Your task to perform on an android device: Open the Play Movies app and select the watchlist tab. Image 0: 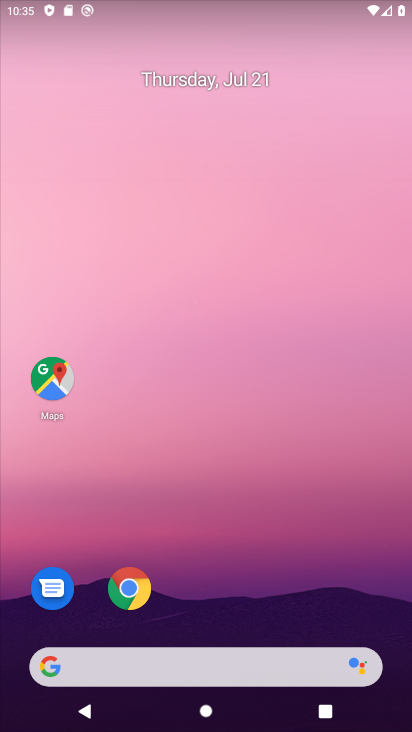
Step 0: drag from (169, 624) to (172, 230)
Your task to perform on an android device: Open the Play Movies app and select the watchlist tab. Image 1: 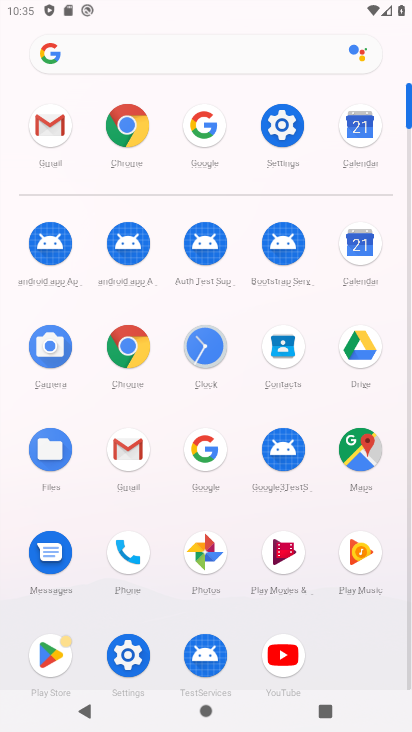
Step 1: click (279, 556)
Your task to perform on an android device: Open the Play Movies app and select the watchlist tab. Image 2: 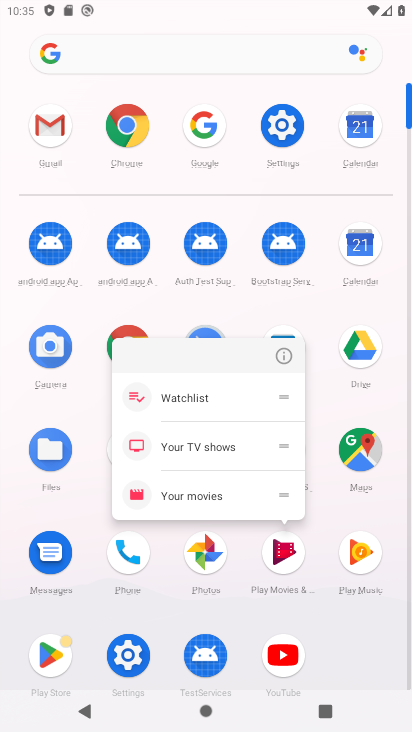
Step 2: click (275, 352)
Your task to perform on an android device: Open the Play Movies app and select the watchlist tab. Image 3: 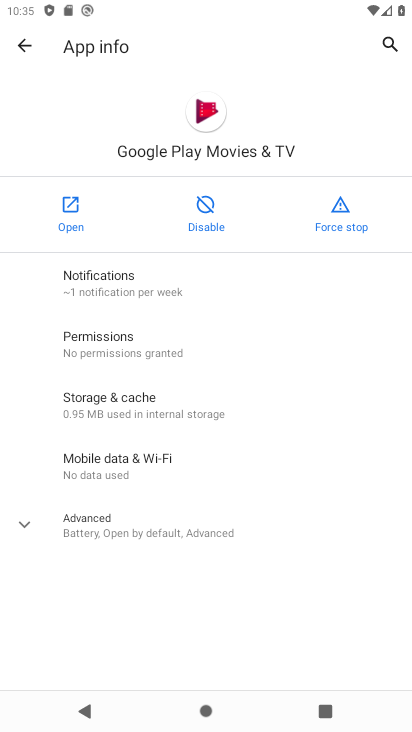
Step 3: click (63, 202)
Your task to perform on an android device: Open the Play Movies app and select the watchlist tab. Image 4: 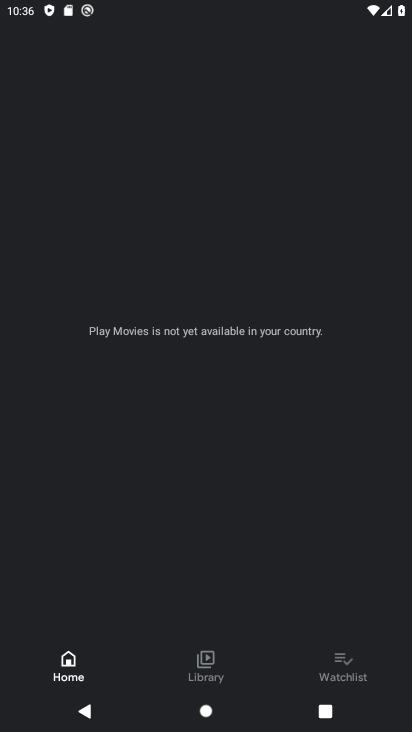
Step 4: click (331, 666)
Your task to perform on an android device: Open the Play Movies app and select the watchlist tab. Image 5: 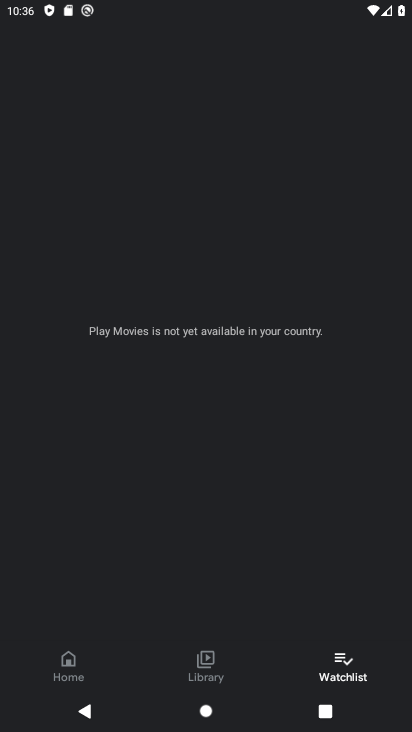
Step 5: task complete